Your task to perform on an android device: turn on the 12-hour format for clock Image 0: 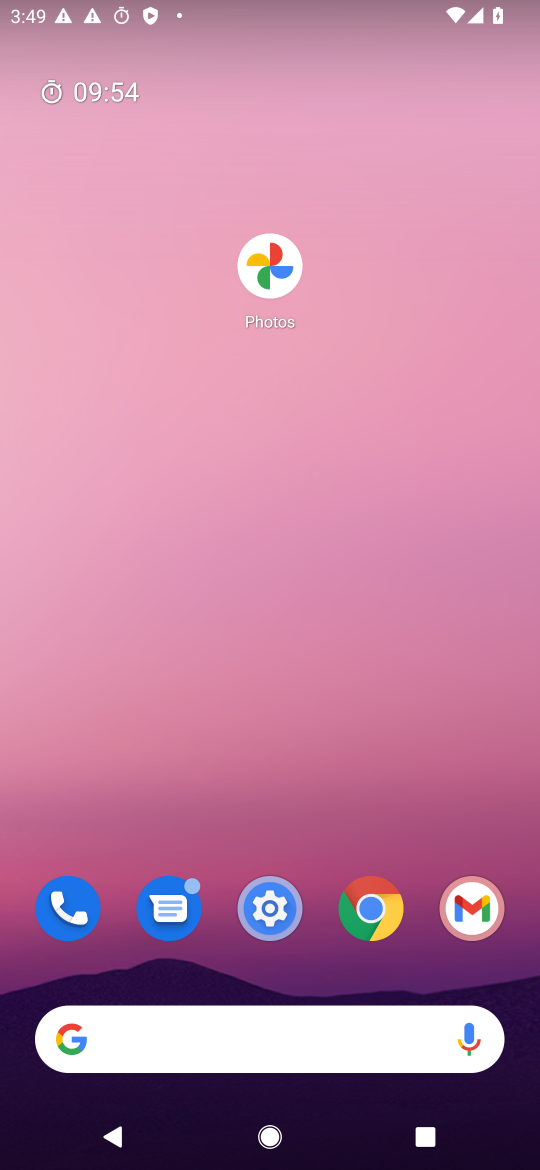
Step 0: drag from (285, 955) to (338, 109)
Your task to perform on an android device: turn on the 12-hour format for clock Image 1: 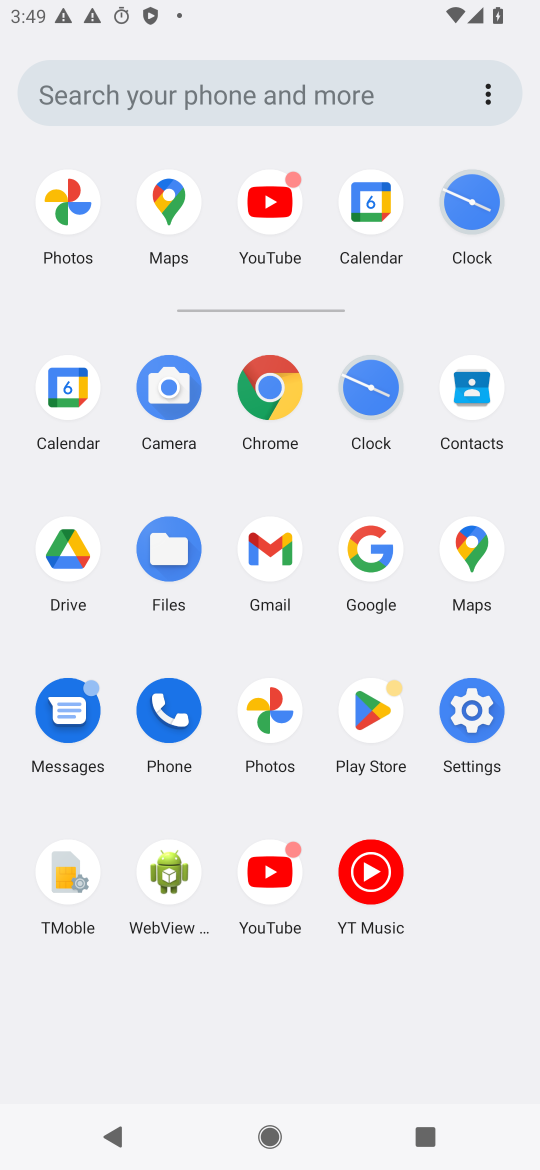
Step 1: click (474, 741)
Your task to perform on an android device: turn on the 12-hour format for clock Image 2: 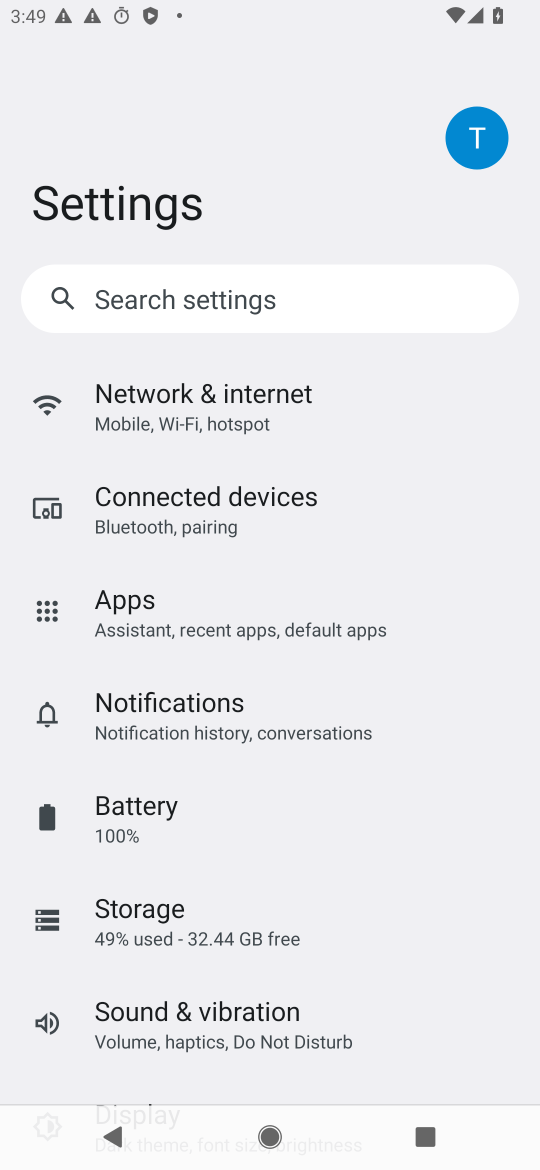
Step 2: drag from (220, 885) to (274, 498)
Your task to perform on an android device: turn on the 12-hour format for clock Image 3: 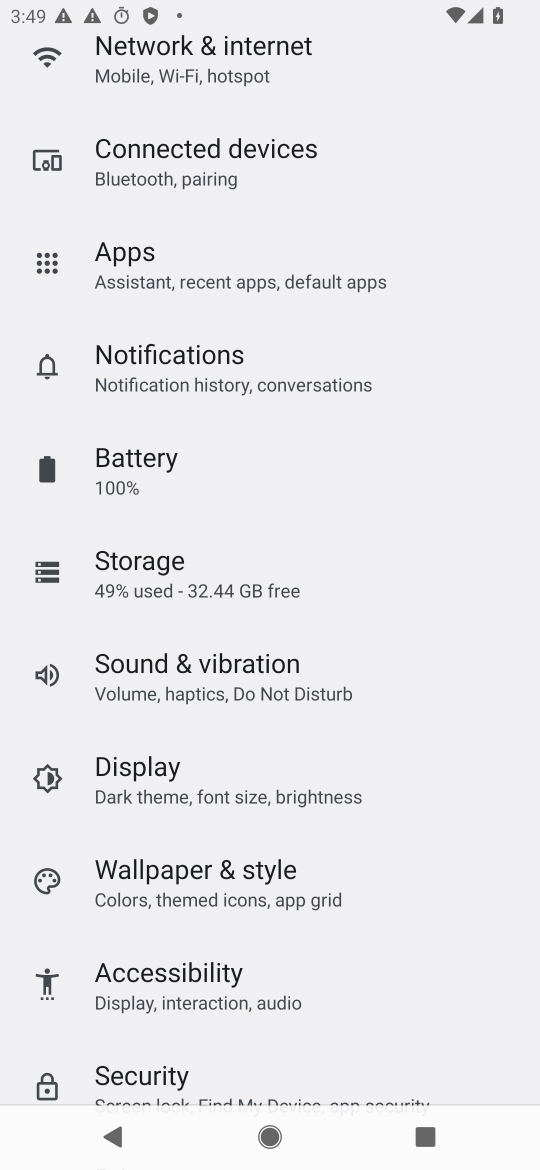
Step 3: drag from (192, 970) to (239, 648)
Your task to perform on an android device: turn on the 12-hour format for clock Image 4: 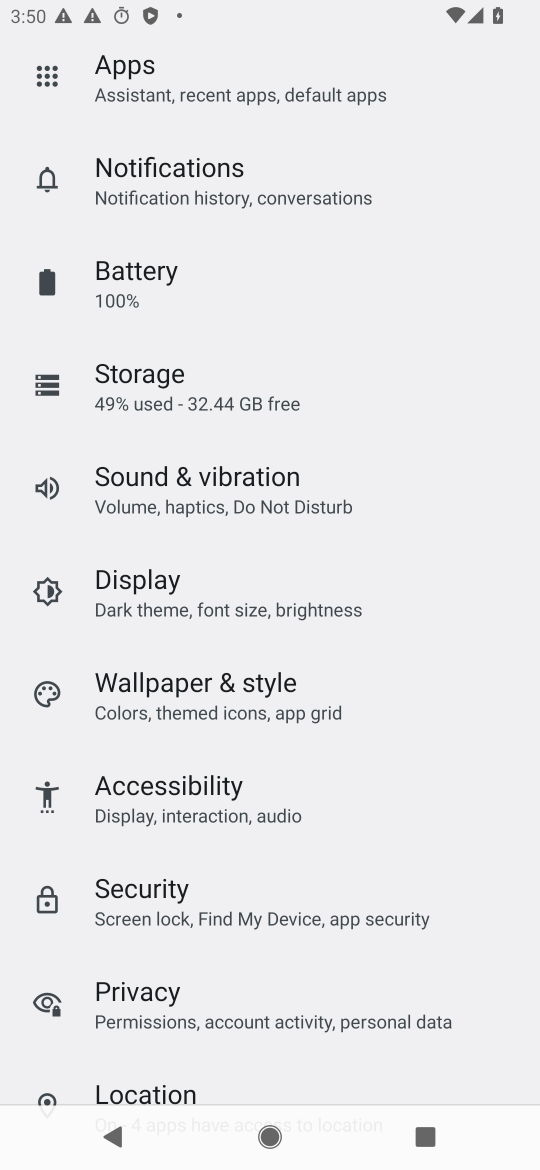
Step 4: drag from (208, 941) to (265, 623)
Your task to perform on an android device: turn on the 12-hour format for clock Image 5: 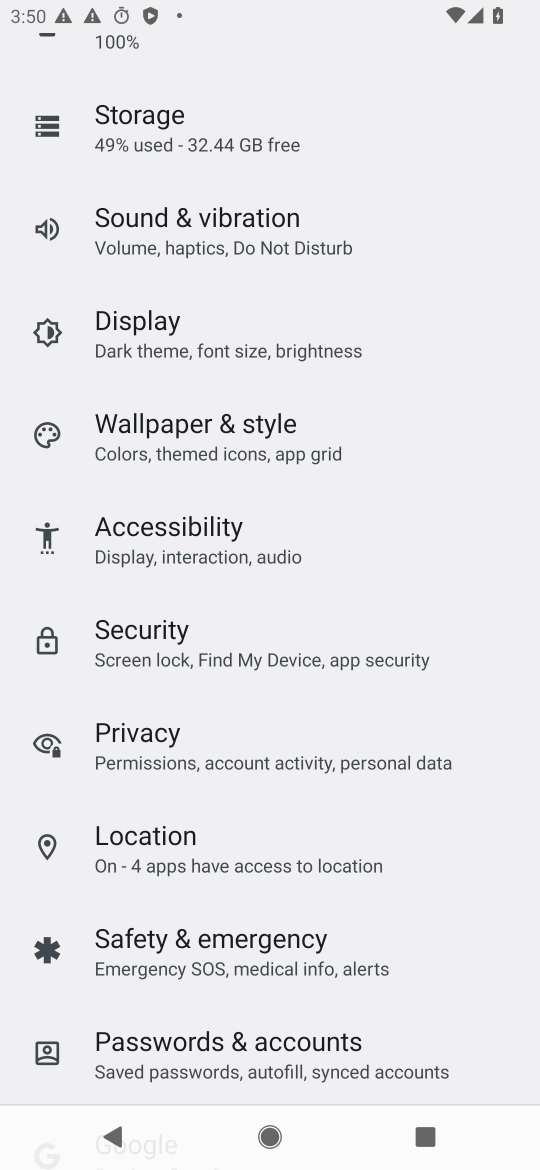
Step 5: drag from (167, 1019) to (322, 244)
Your task to perform on an android device: turn on the 12-hour format for clock Image 6: 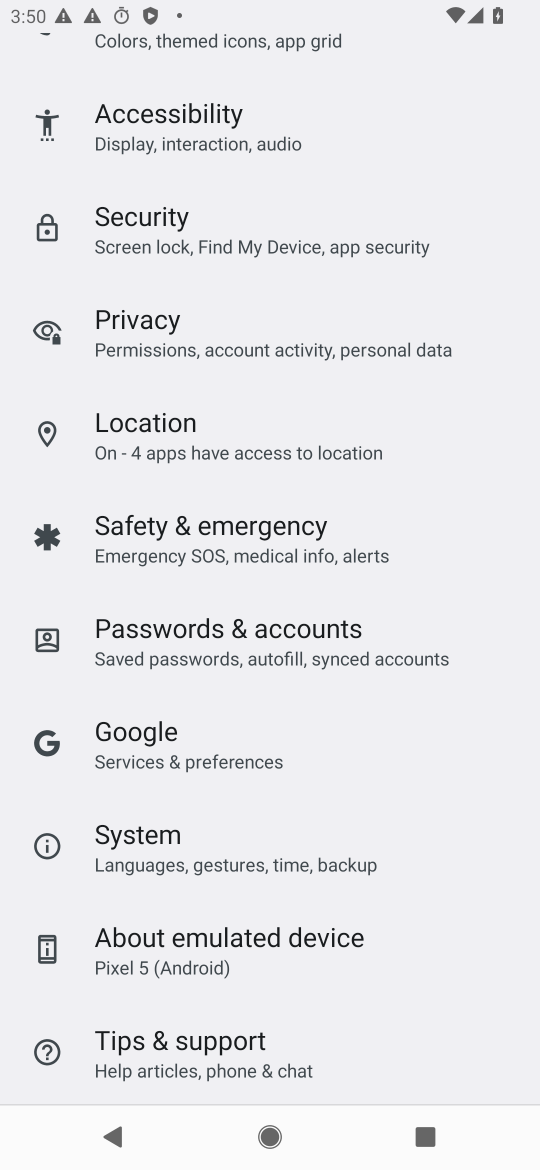
Step 6: click (188, 866)
Your task to perform on an android device: turn on the 12-hour format for clock Image 7: 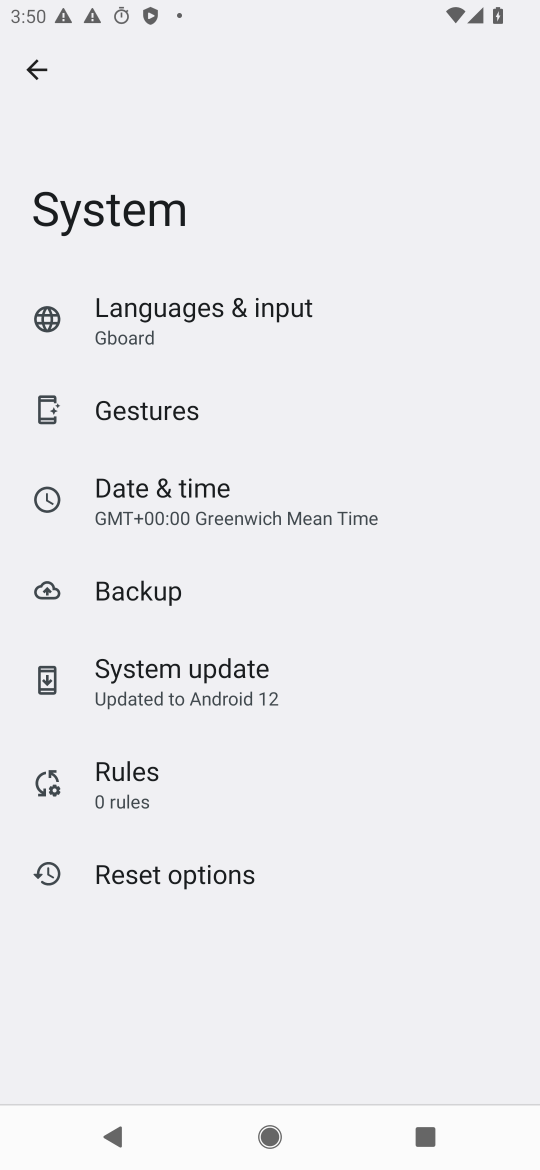
Step 7: click (172, 503)
Your task to perform on an android device: turn on the 12-hour format for clock Image 8: 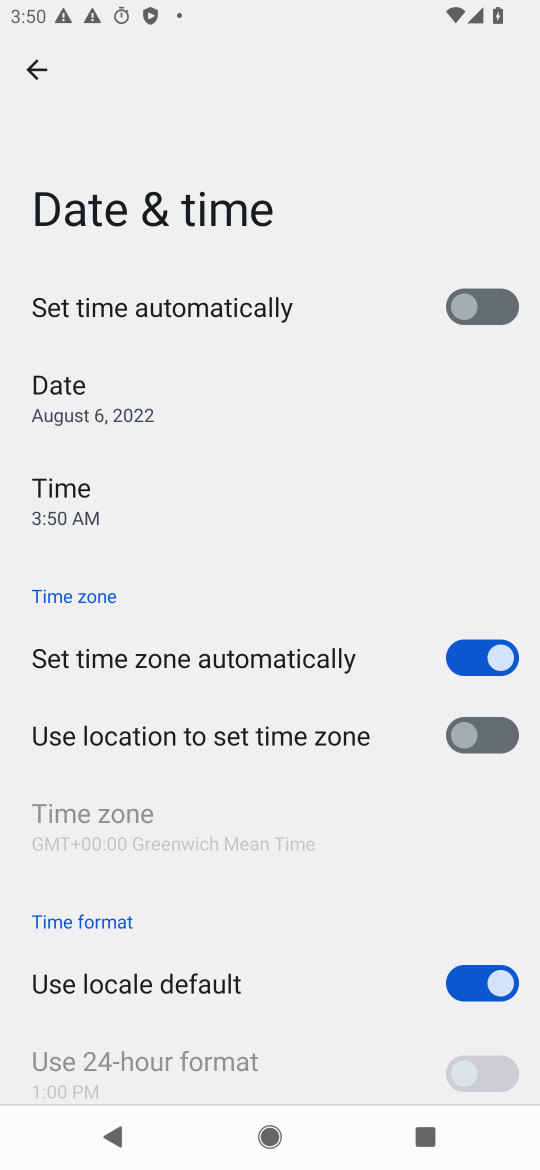
Step 8: task complete